Your task to perform on an android device: Open eBay Image 0: 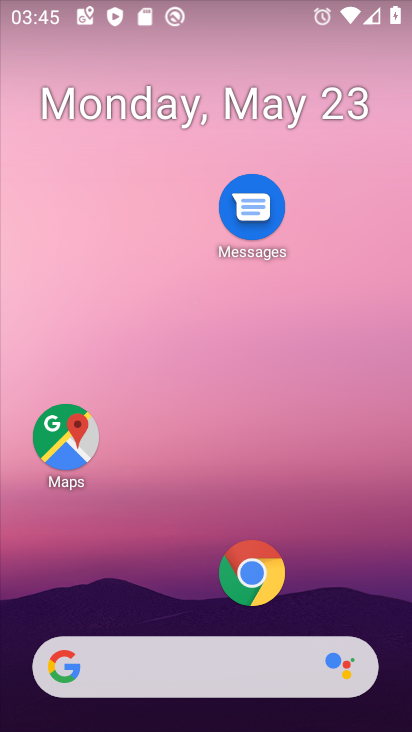
Step 0: drag from (251, 630) to (314, 43)
Your task to perform on an android device: Open eBay Image 1: 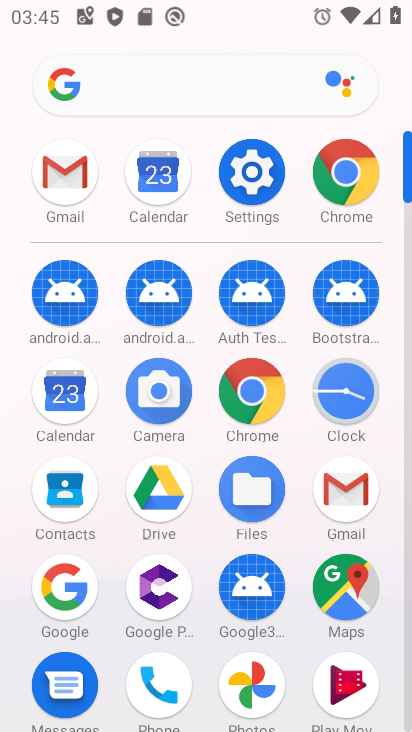
Step 1: click (256, 388)
Your task to perform on an android device: Open eBay Image 2: 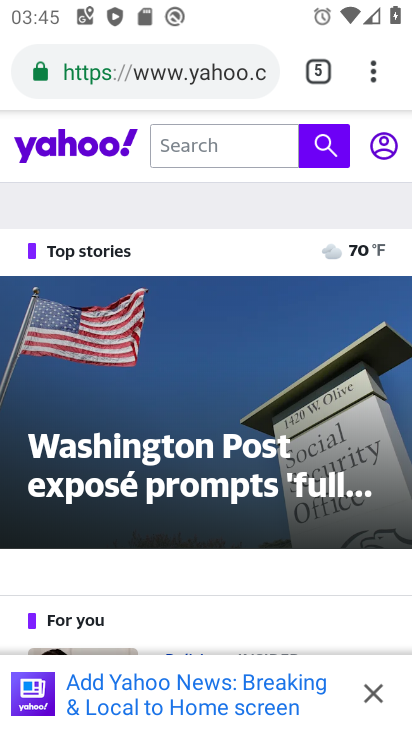
Step 2: click (205, 67)
Your task to perform on an android device: Open eBay Image 3: 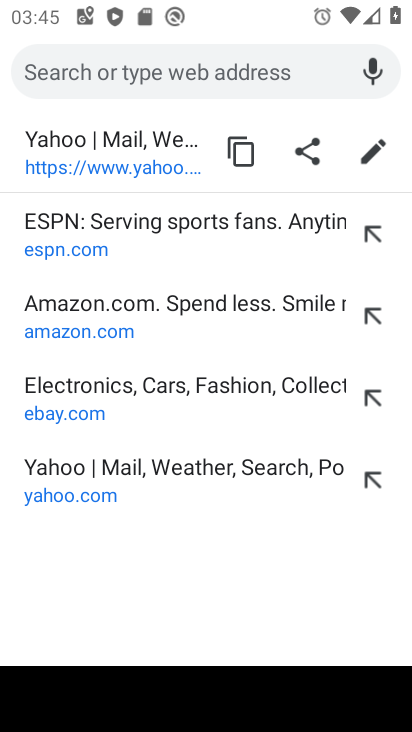
Step 3: type "ebay"
Your task to perform on an android device: Open eBay Image 4: 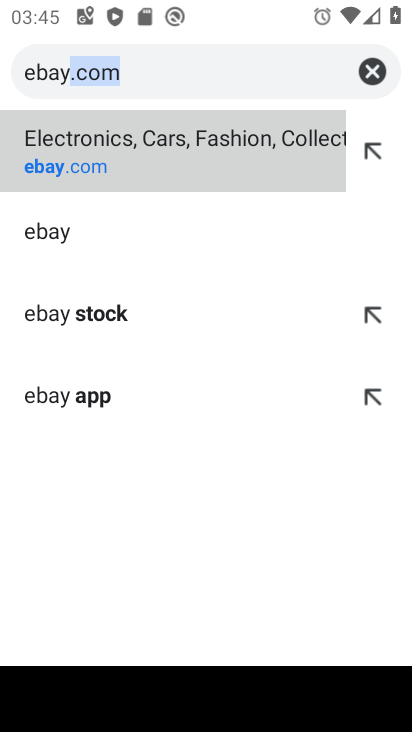
Step 4: click (243, 151)
Your task to perform on an android device: Open eBay Image 5: 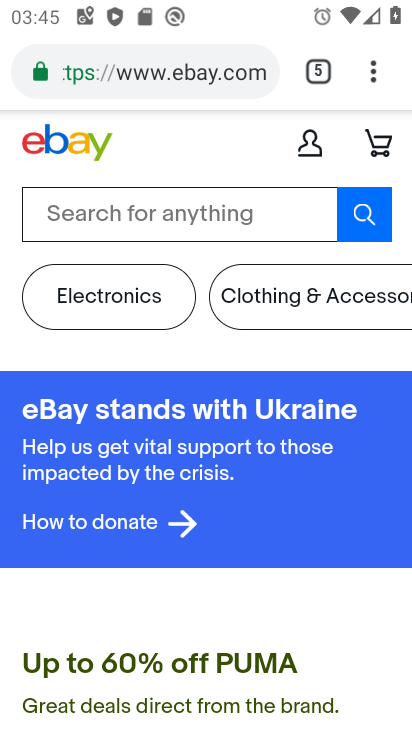
Step 5: task complete